Your task to perform on an android device: Go to internet settings Image 0: 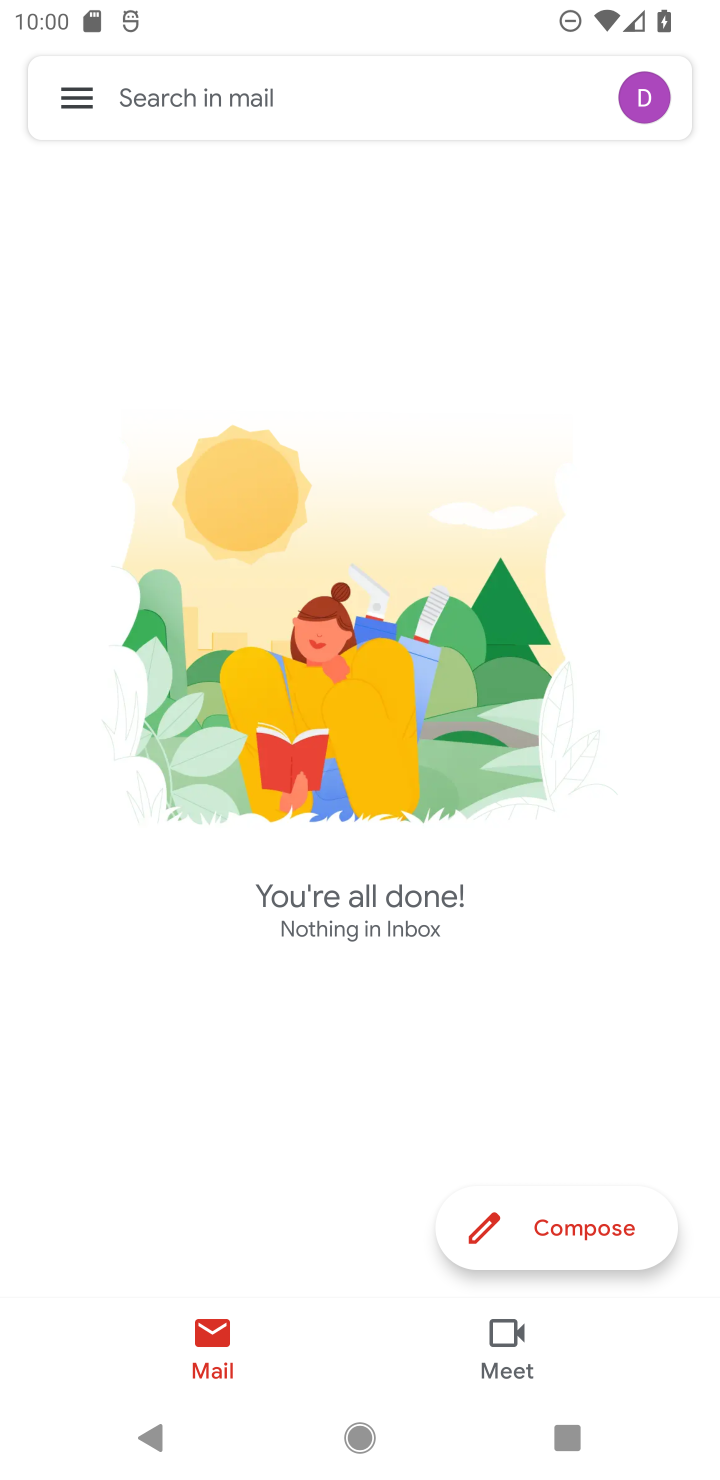
Step 0: click (357, 1426)
Your task to perform on an android device: Go to internet settings Image 1: 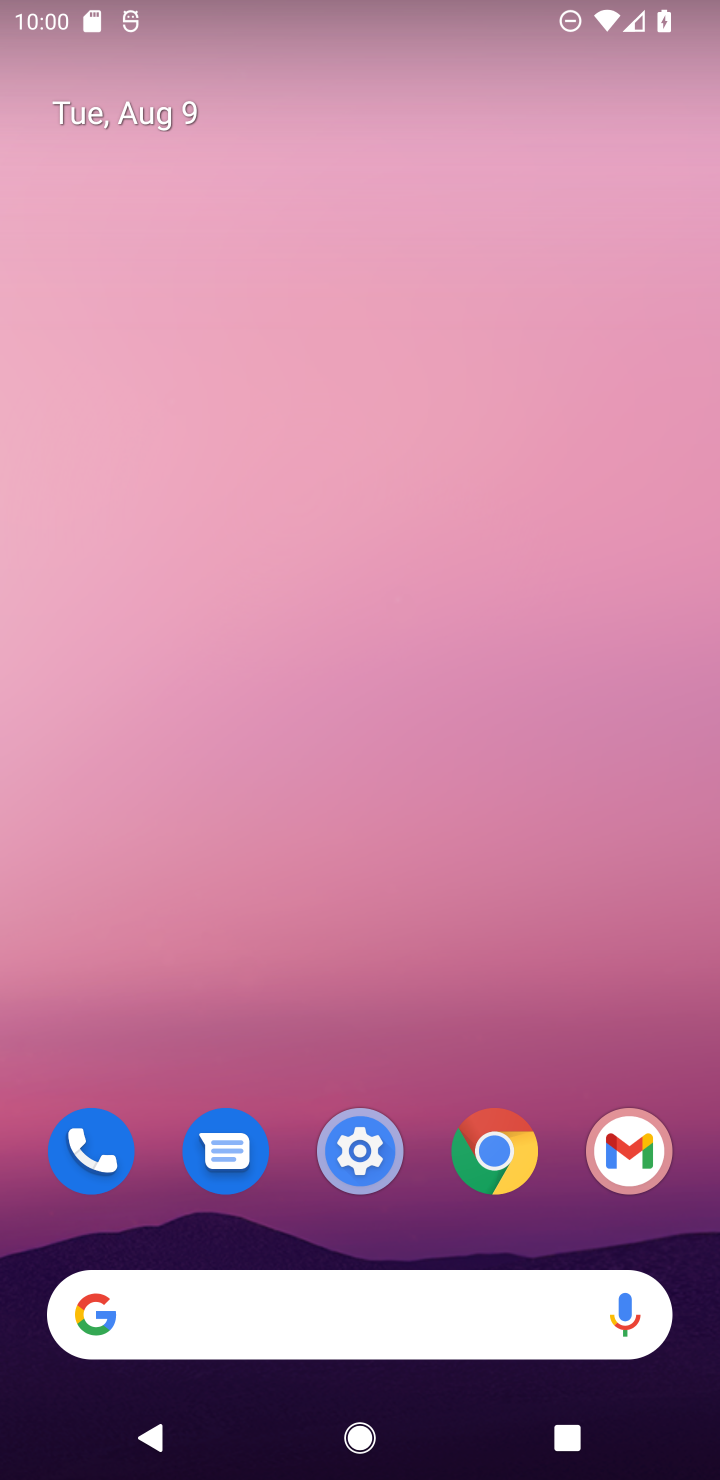
Step 1: click (345, 1155)
Your task to perform on an android device: Go to internet settings Image 2: 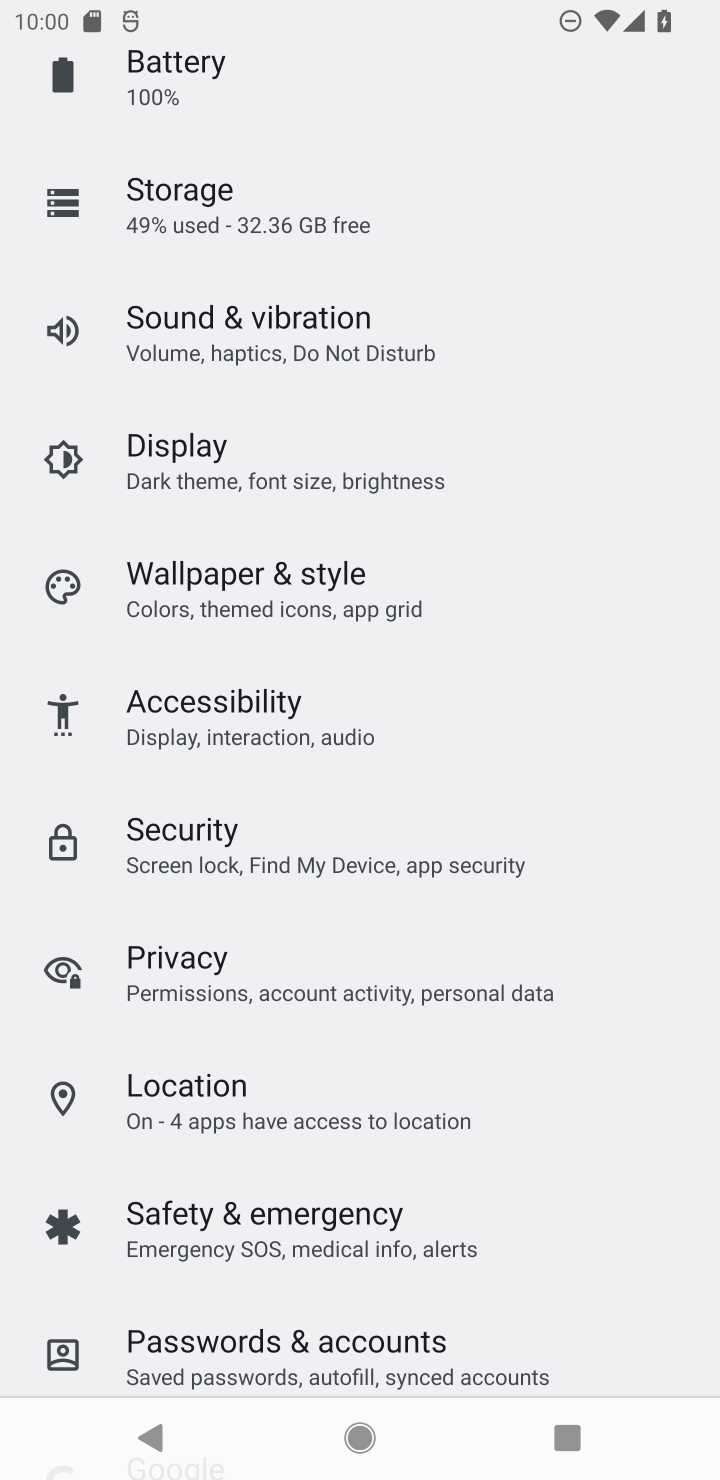
Step 2: drag from (490, 265) to (405, 1254)
Your task to perform on an android device: Go to internet settings Image 3: 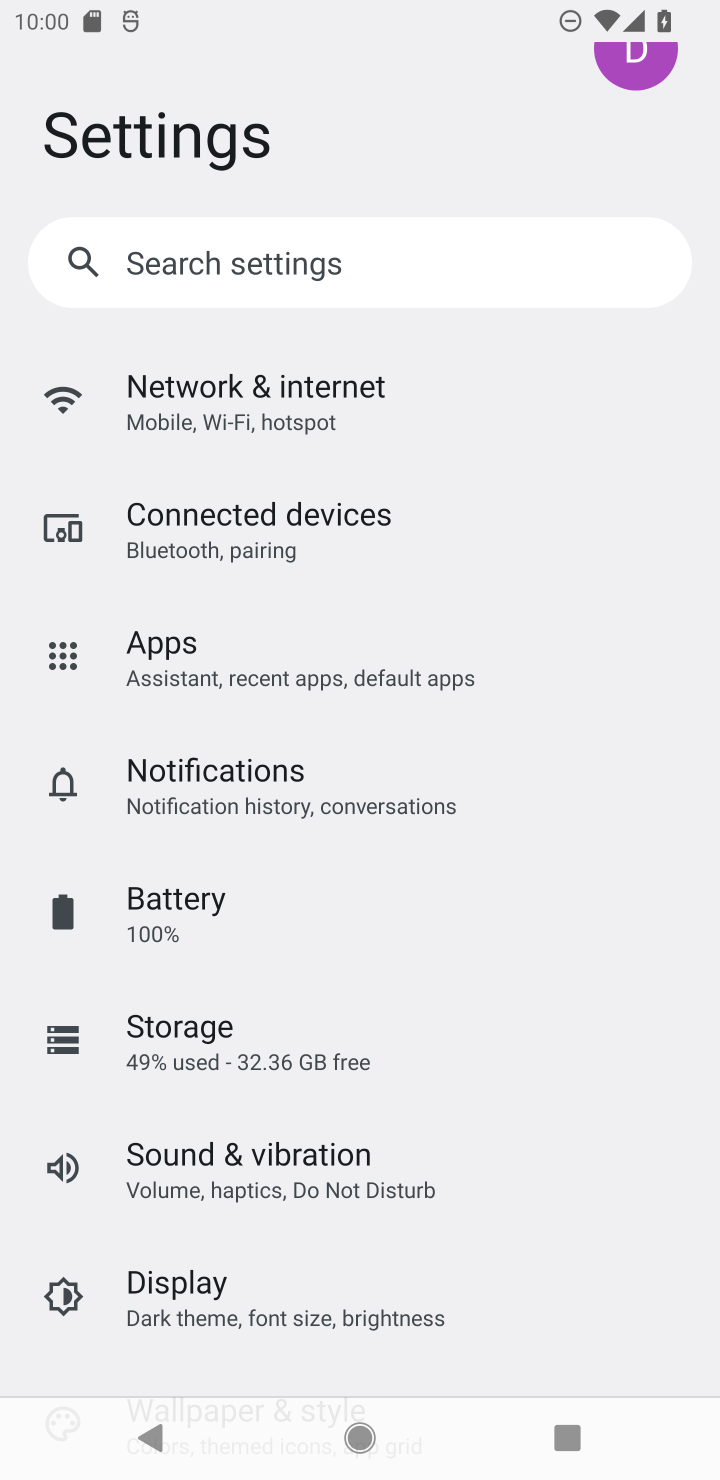
Step 3: click (238, 504)
Your task to perform on an android device: Go to internet settings Image 4: 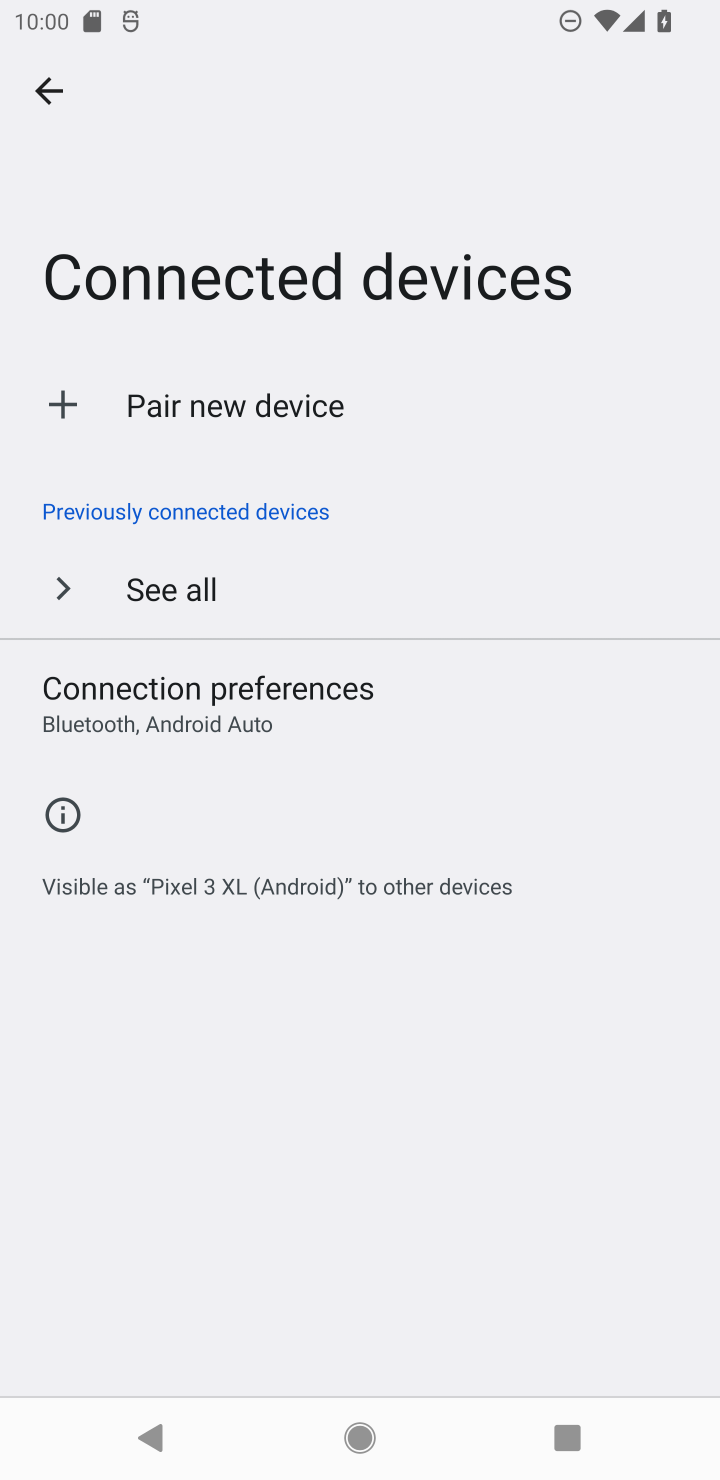
Step 4: click (39, 89)
Your task to perform on an android device: Go to internet settings Image 5: 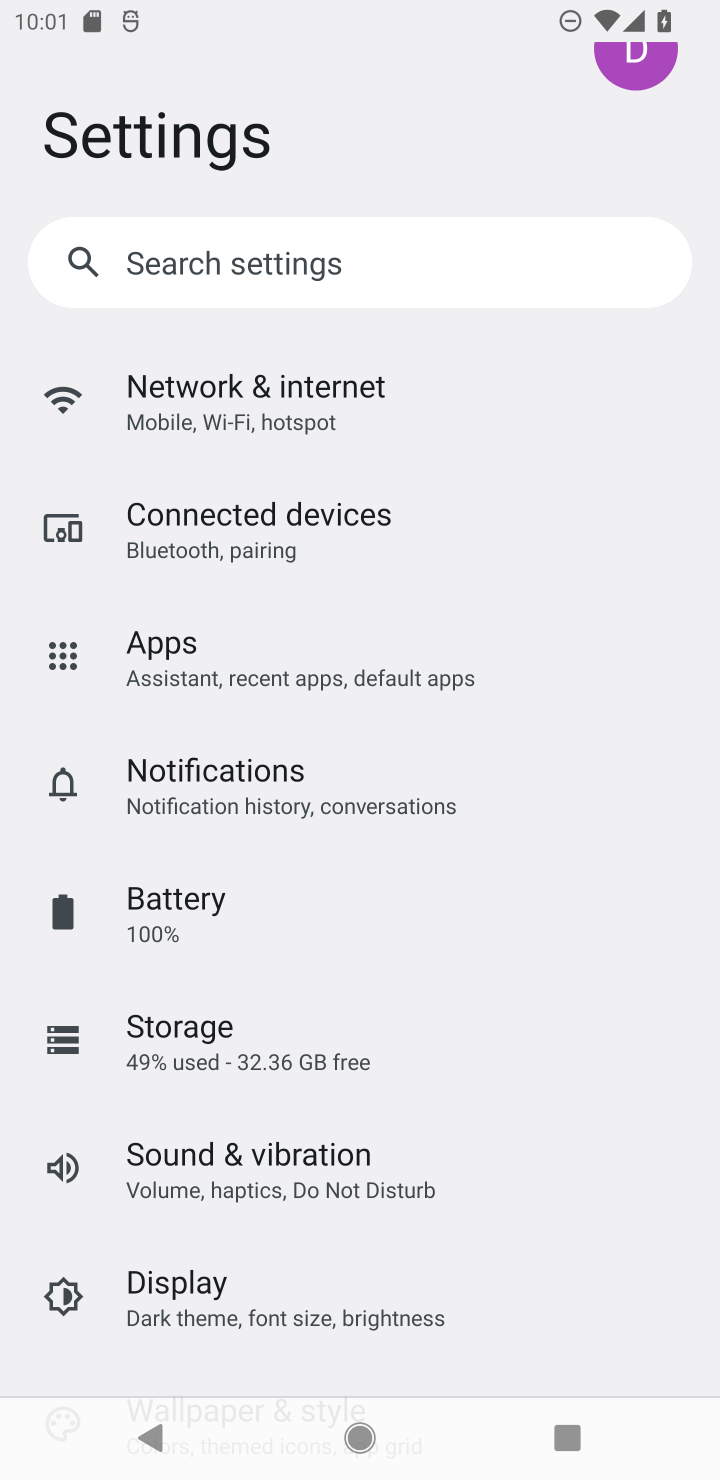
Step 5: click (179, 394)
Your task to perform on an android device: Go to internet settings Image 6: 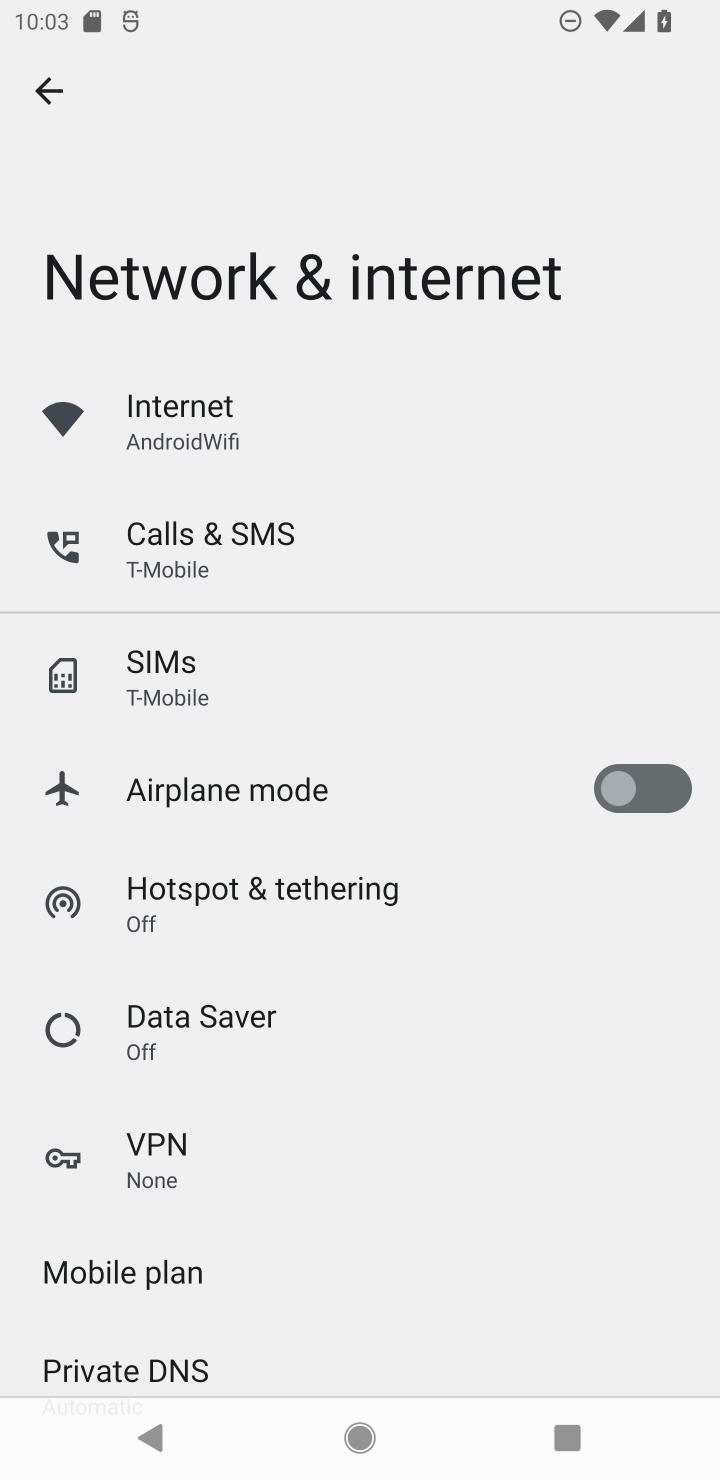
Step 6: task complete